Your task to perform on an android device: Clear the cart on amazon.com. Add usb-c to usb-b to the cart on amazon.com Image 0: 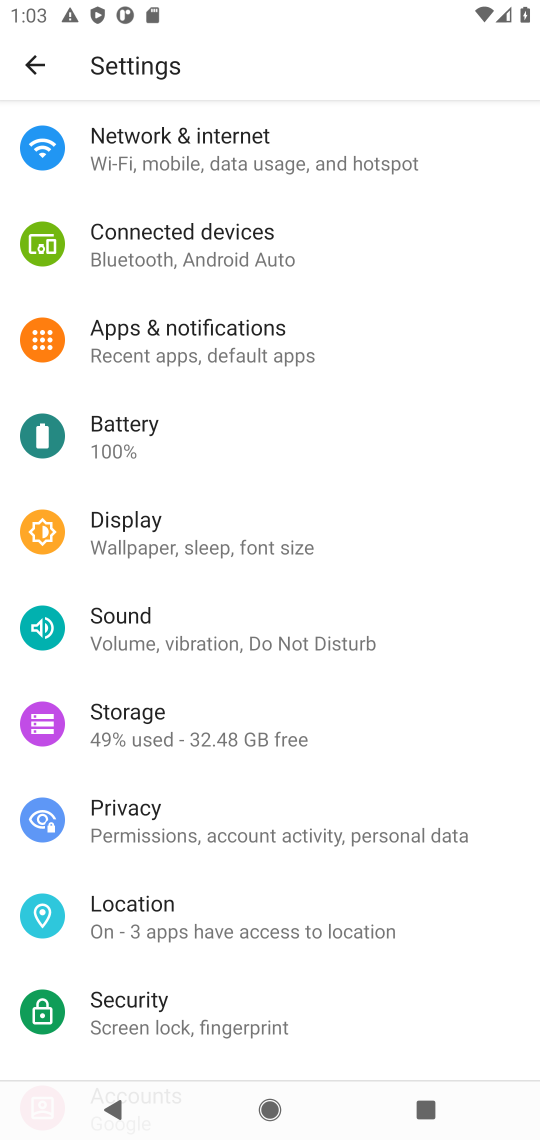
Step 0: press home button
Your task to perform on an android device: Clear the cart on amazon.com. Add usb-c to usb-b to the cart on amazon.com Image 1: 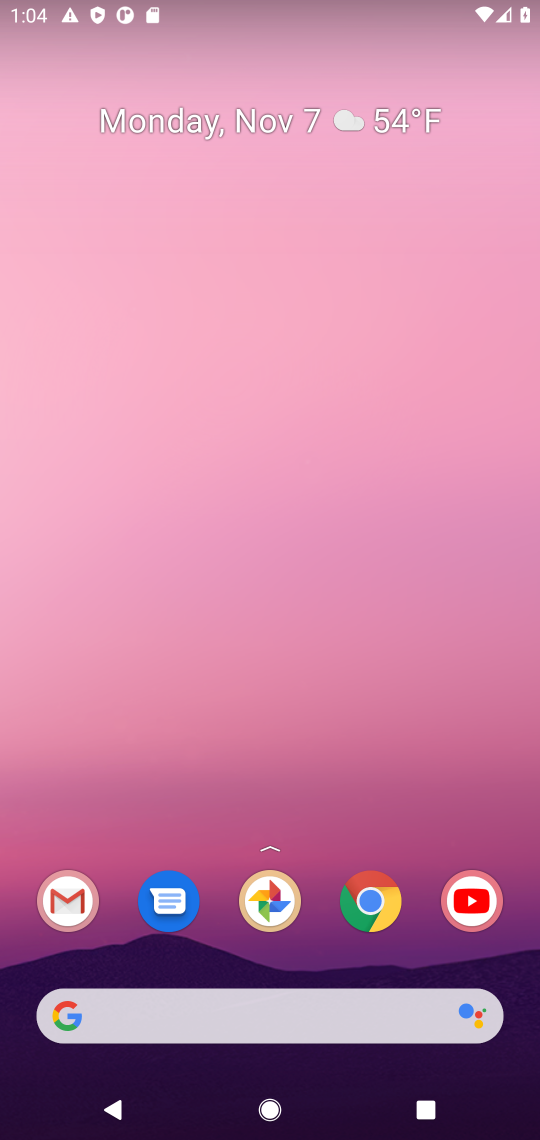
Step 1: click (374, 912)
Your task to perform on an android device: Clear the cart on amazon.com. Add usb-c to usb-b to the cart on amazon.com Image 2: 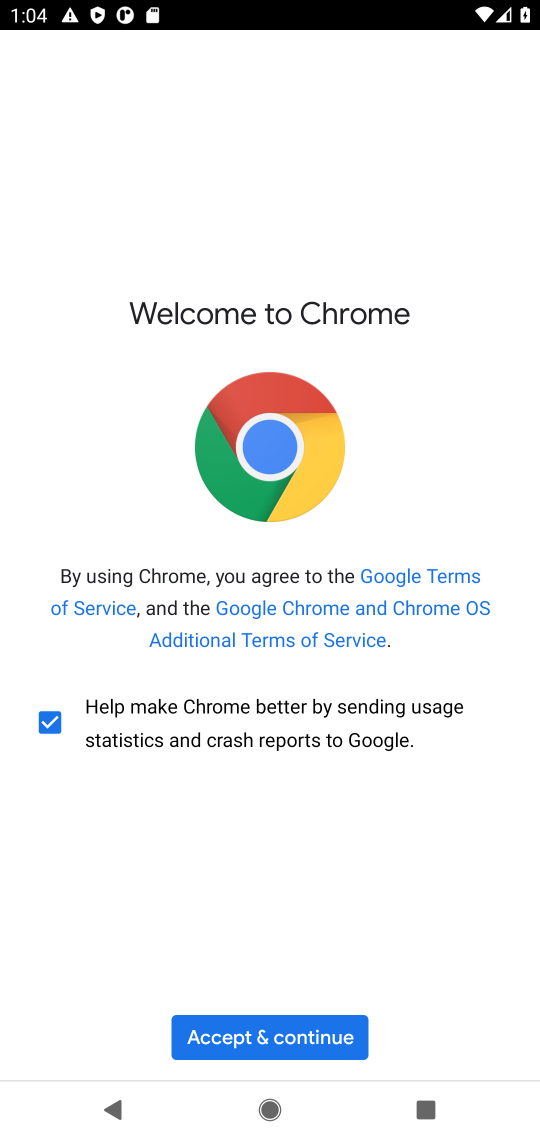
Step 2: click (298, 1026)
Your task to perform on an android device: Clear the cart on amazon.com. Add usb-c to usb-b to the cart on amazon.com Image 3: 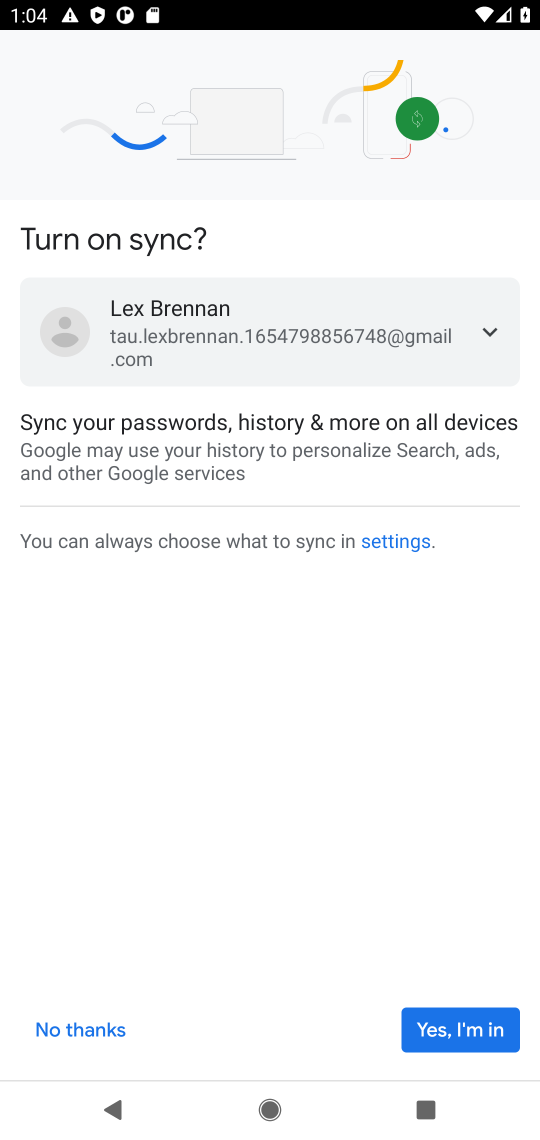
Step 3: click (61, 1030)
Your task to perform on an android device: Clear the cart on amazon.com. Add usb-c to usb-b to the cart on amazon.com Image 4: 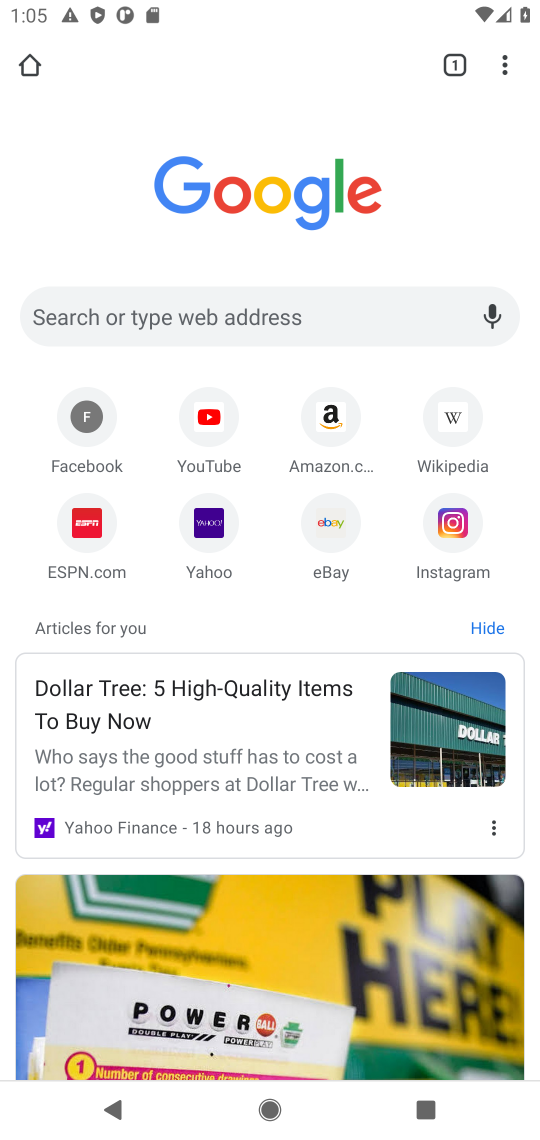
Step 4: click (315, 436)
Your task to perform on an android device: Clear the cart on amazon.com. Add usb-c to usb-b to the cart on amazon.com Image 5: 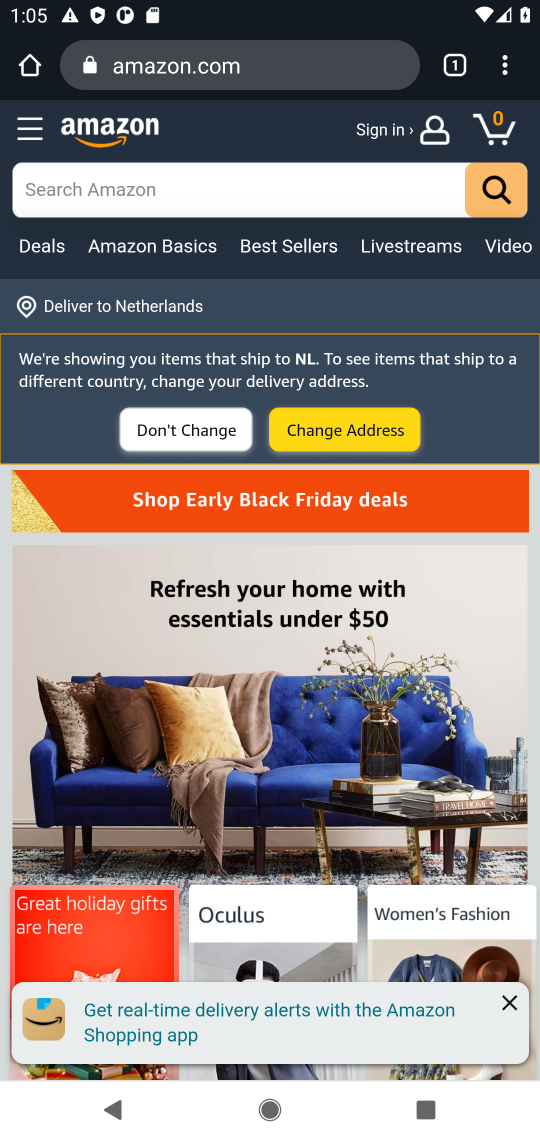
Step 5: click (93, 202)
Your task to perform on an android device: Clear the cart on amazon.com. Add usb-c to usb-b to the cart on amazon.com Image 6: 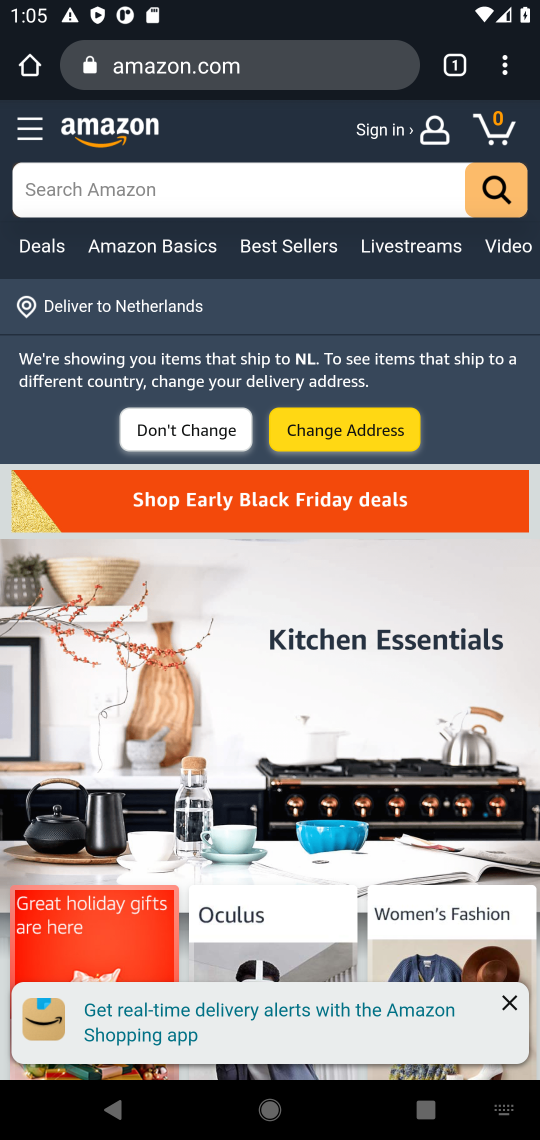
Step 6: click (504, 129)
Your task to perform on an android device: Clear the cart on amazon.com. Add usb-c to usb-b to the cart on amazon.com Image 7: 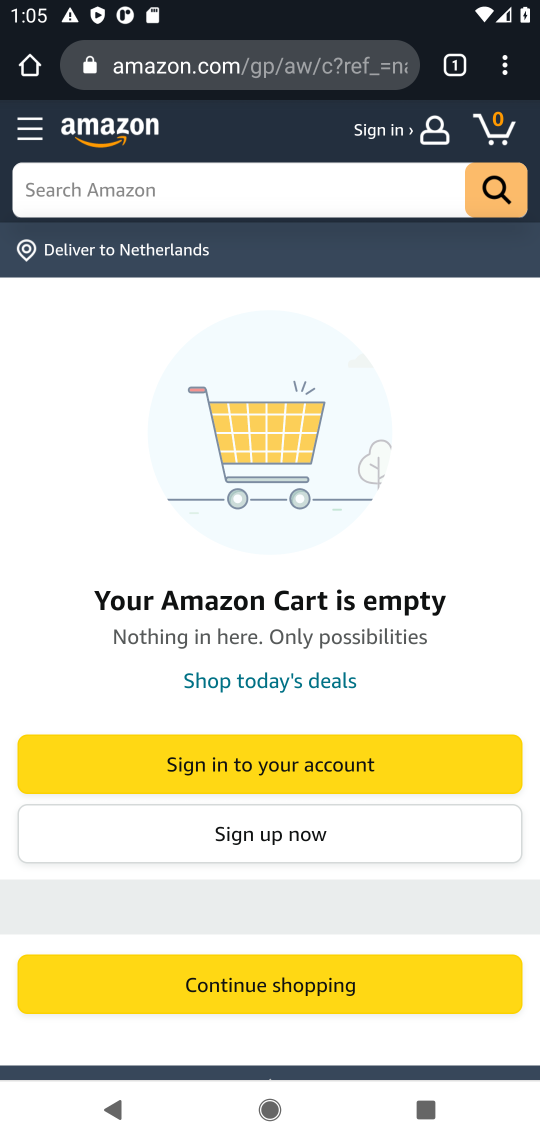
Step 7: click (120, 203)
Your task to perform on an android device: Clear the cart on amazon.com. Add usb-c to usb-b to the cart on amazon.com Image 8: 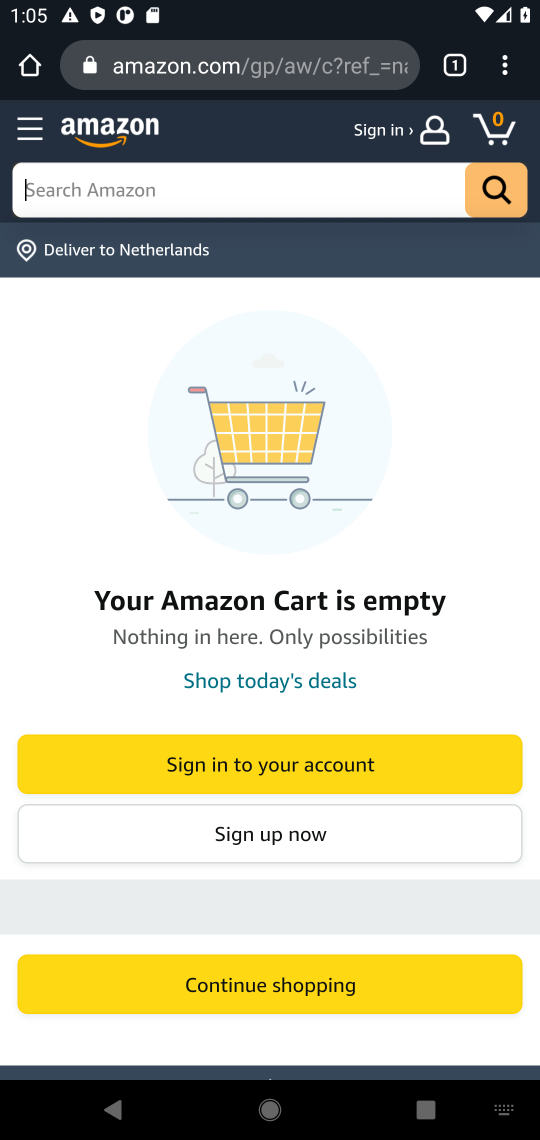
Step 8: type "usb-c to usb-b "
Your task to perform on an android device: Clear the cart on amazon.com. Add usb-c to usb-b to the cart on amazon.com Image 9: 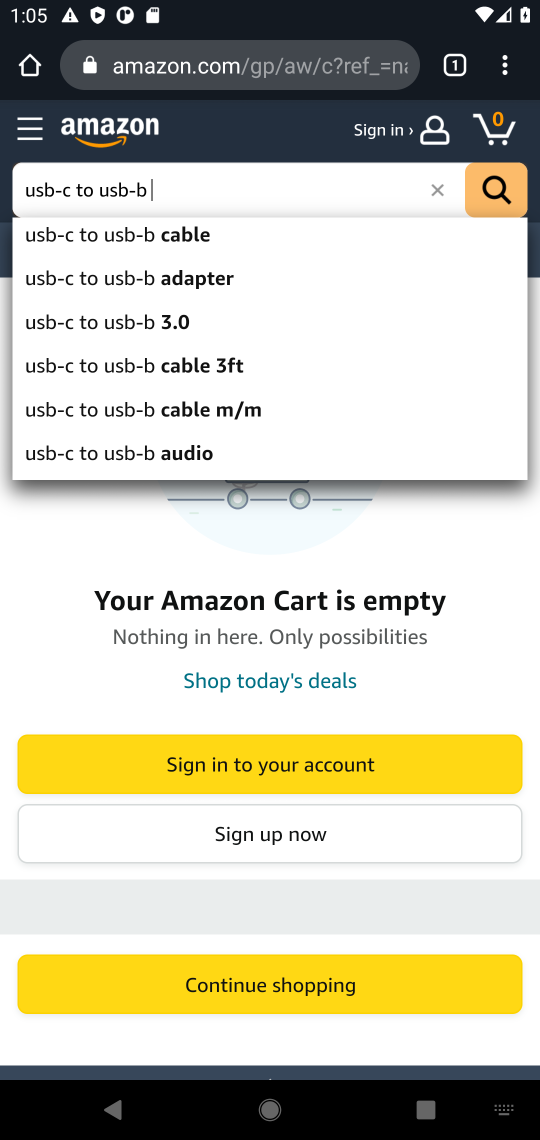
Step 9: click (505, 189)
Your task to perform on an android device: Clear the cart on amazon.com. Add usb-c to usb-b to the cart on amazon.com Image 10: 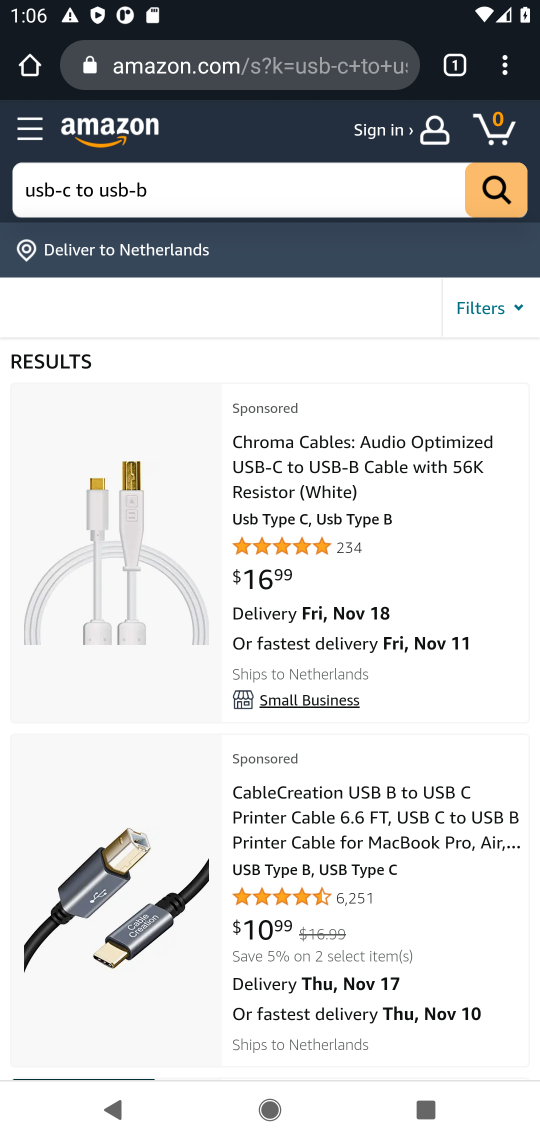
Step 10: click (222, 569)
Your task to perform on an android device: Clear the cart on amazon.com. Add usb-c to usb-b to the cart on amazon.com Image 11: 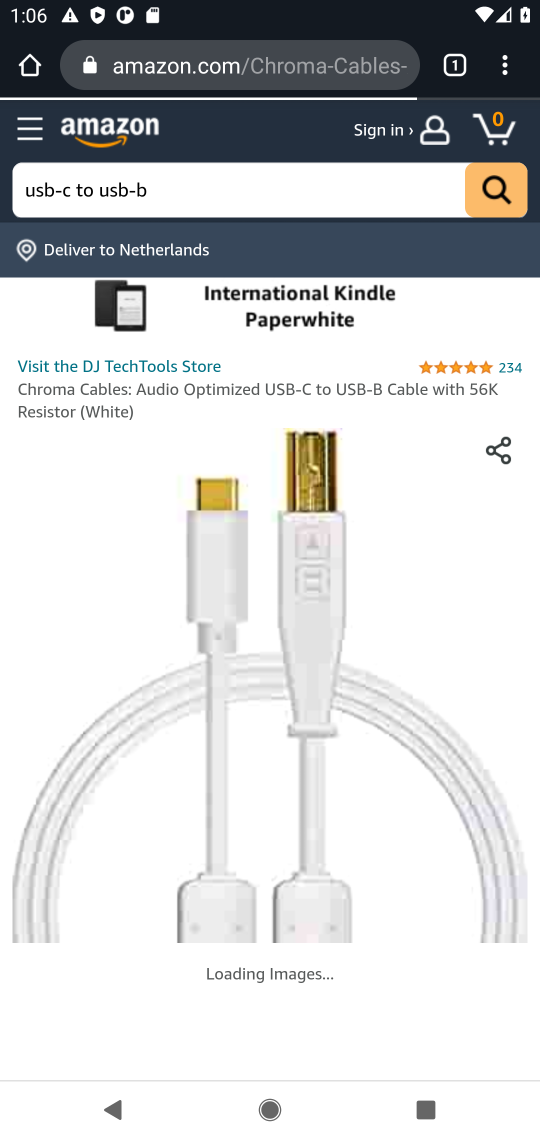
Step 11: drag from (281, 755) to (269, 291)
Your task to perform on an android device: Clear the cart on amazon.com. Add usb-c to usb-b to the cart on amazon.com Image 12: 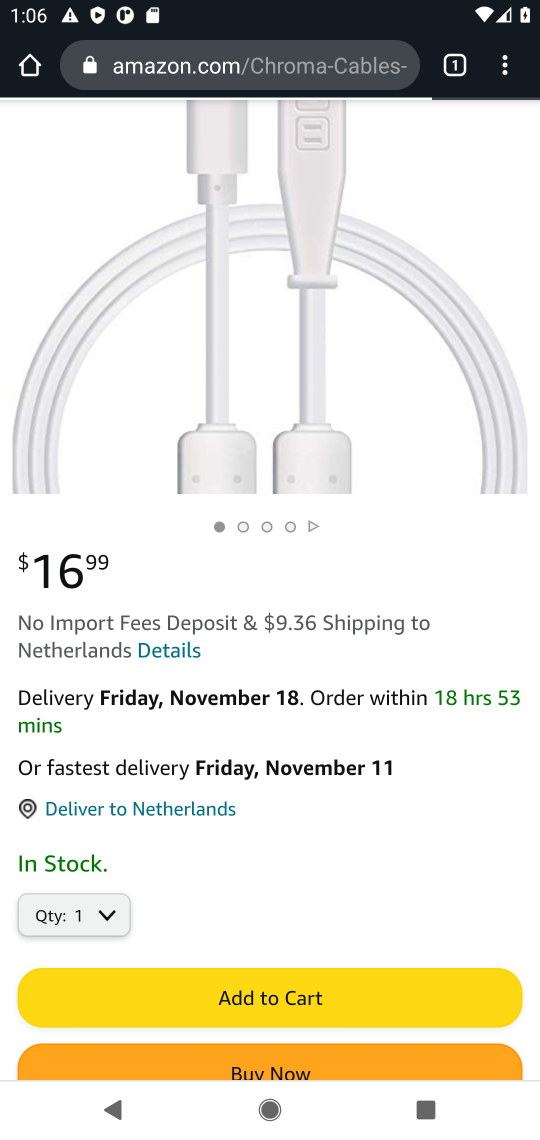
Step 12: click (265, 986)
Your task to perform on an android device: Clear the cart on amazon.com. Add usb-c to usb-b to the cart on amazon.com Image 13: 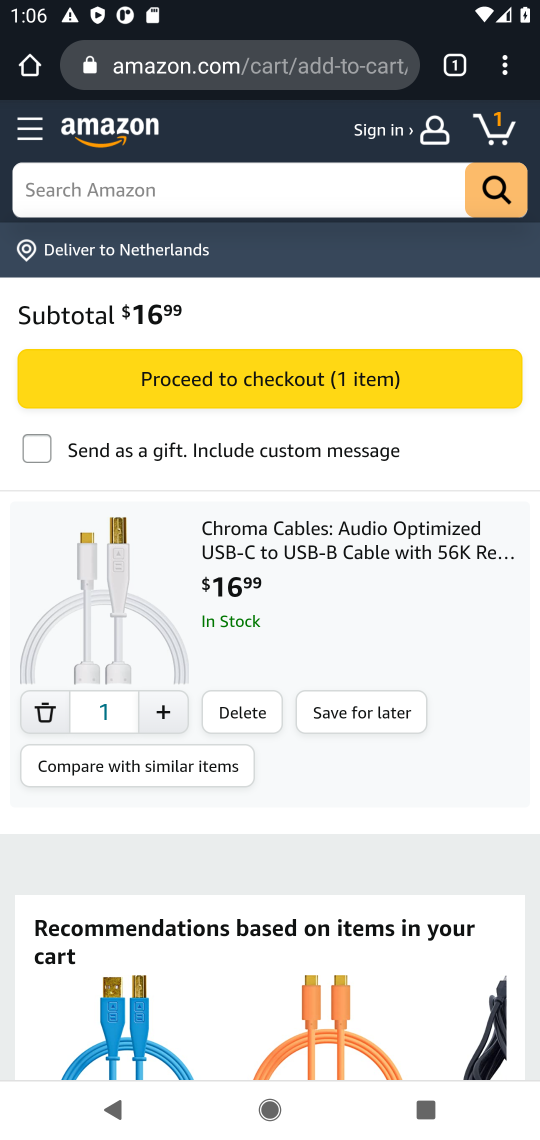
Step 13: task complete